Your task to perform on an android device: Go to wifi settings Image 0: 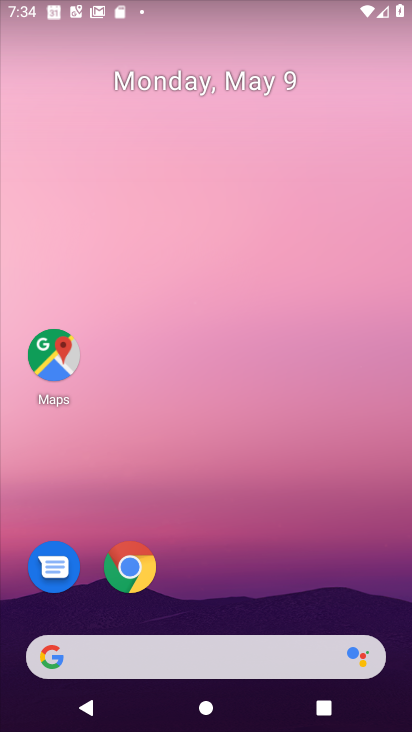
Step 0: click (255, 154)
Your task to perform on an android device: Go to wifi settings Image 1: 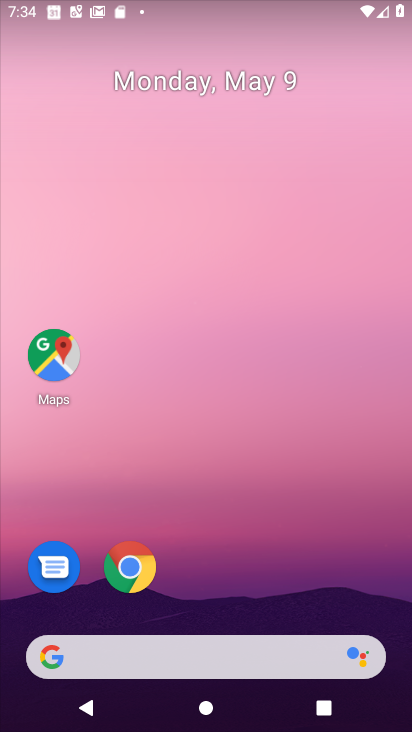
Step 1: drag from (206, 586) to (257, 148)
Your task to perform on an android device: Go to wifi settings Image 2: 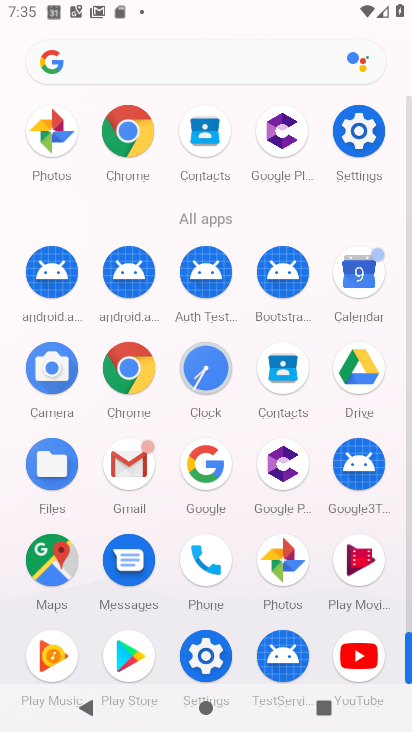
Step 2: click (365, 118)
Your task to perform on an android device: Go to wifi settings Image 3: 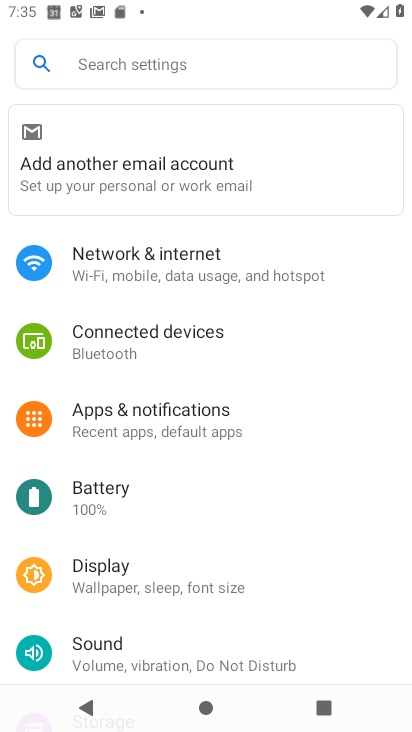
Step 3: click (153, 258)
Your task to perform on an android device: Go to wifi settings Image 4: 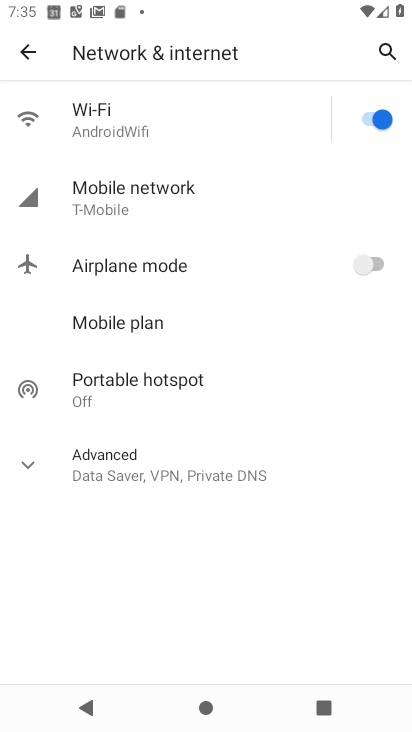
Step 4: click (269, 97)
Your task to perform on an android device: Go to wifi settings Image 5: 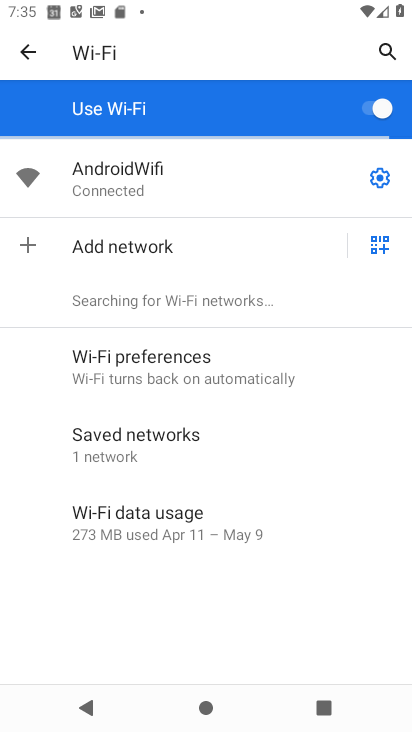
Step 5: click (378, 178)
Your task to perform on an android device: Go to wifi settings Image 6: 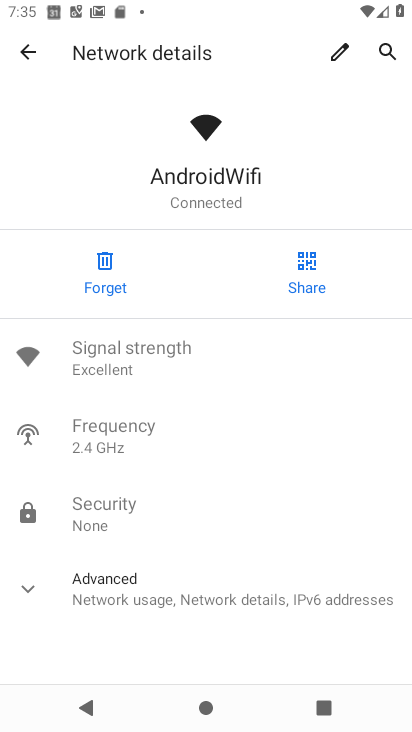
Step 6: task complete